Your task to perform on an android device: delete browsing data in the chrome app Image 0: 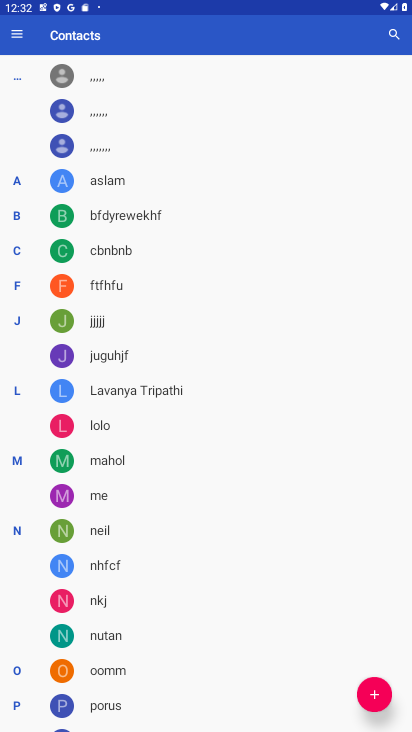
Step 0: task complete